Your task to perform on an android device: Open the stopwatch Image 0: 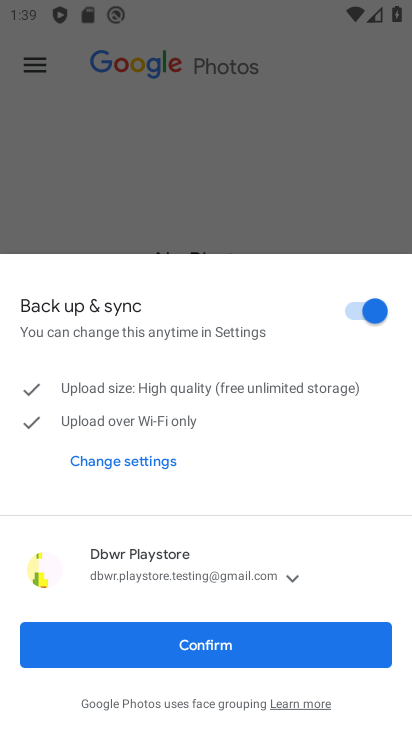
Step 0: press home button
Your task to perform on an android device: Open the stopwatch Image 1: 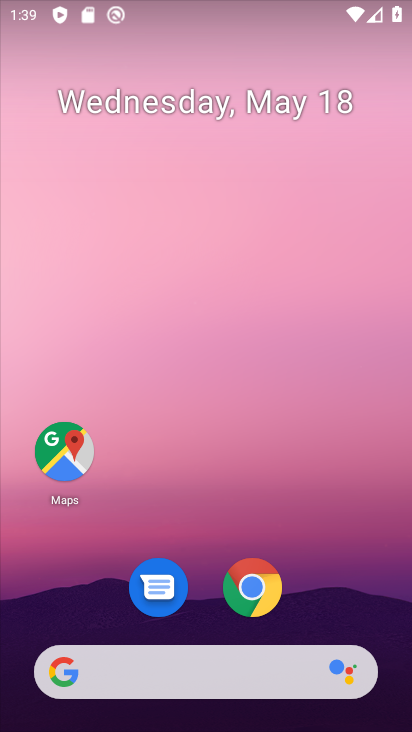
Step 1: drag from (350, 608) to (368, 64)
Your task to perform on an android device: Open the stopwatch Image 2: 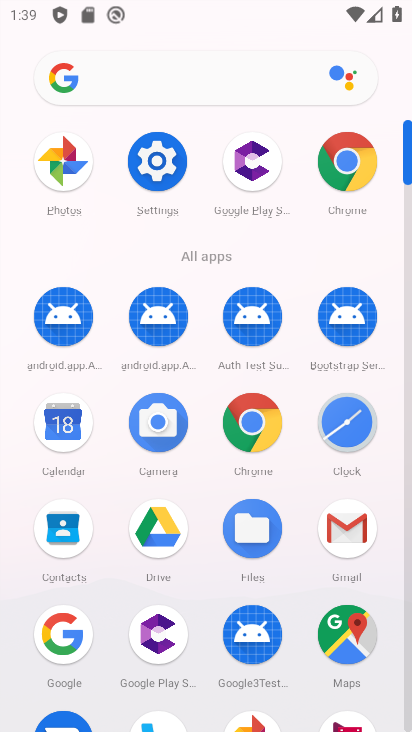
Step 2: click (341, 433)
Your task to perform on an android device: Open the stopwatch Image 3: 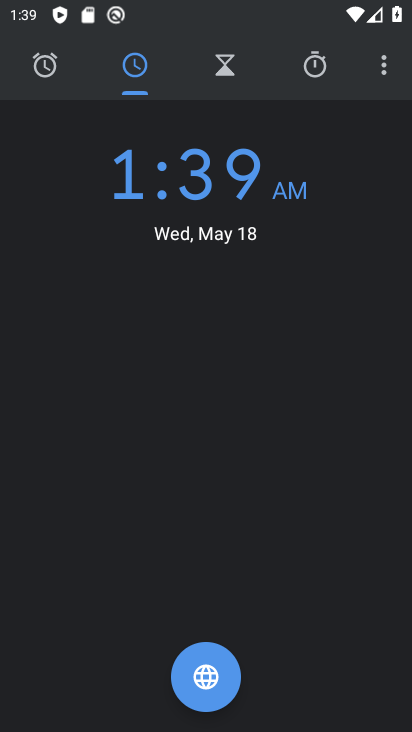
Step 3: click (315, 77)
Your task to perform on an android device: Open the stopwatch Image 4: 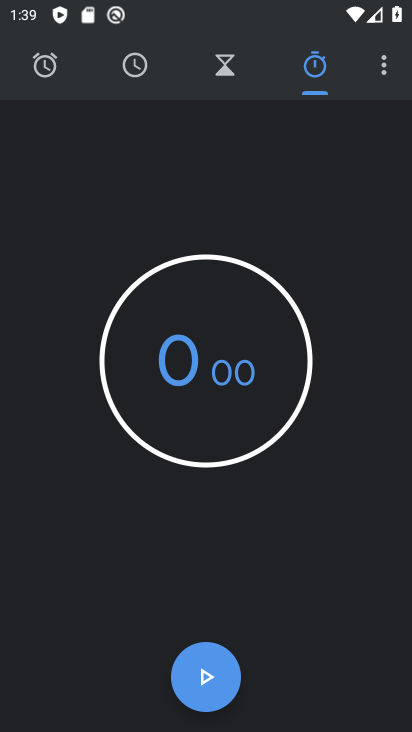
Step 4: task complete